Your task to perform on an android device: see tabs open on other devices in the chrome app Image 0: 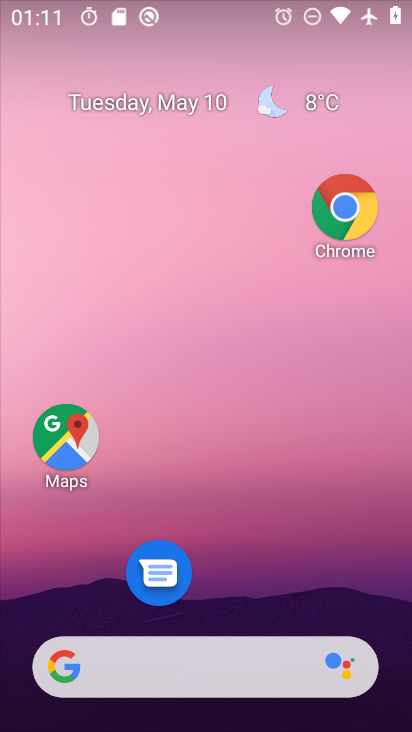
Step 0: click (351, 203)
Your task to perform on an android device: see tabs open on other devices in the chrome app Image 1: 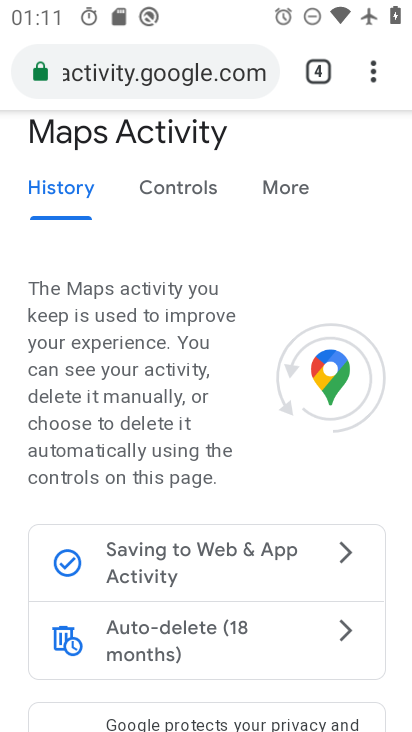
Step 1: task complete